Your task to perform on an android device: Go to notification settings Image 0: 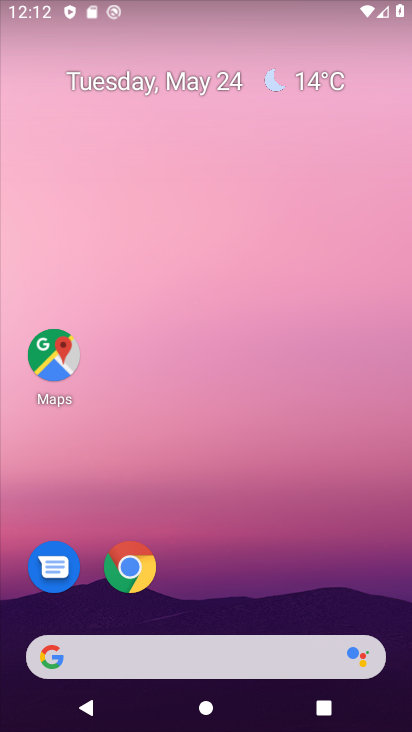
Step 0: drag from (253, 654) to (197, 232)
Your task to perform on an android device: Go to notification settings Image 1: 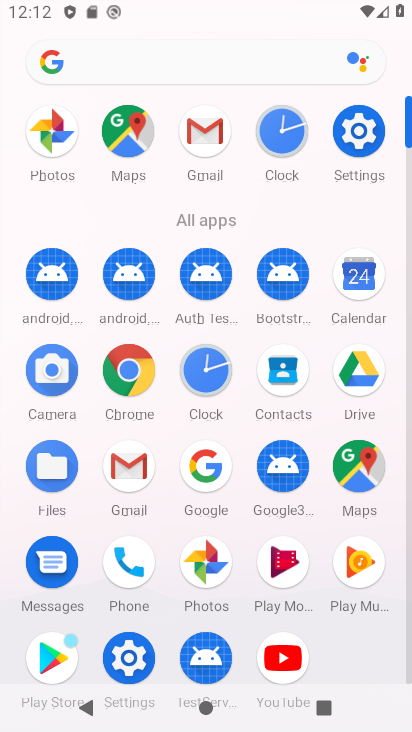
Step 1: click (365, 182)
Your task to perform on an android device: Go to notification settings Image 2: 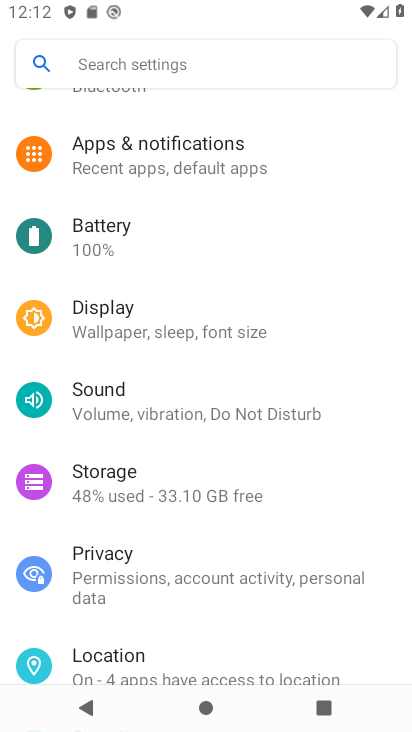
Step 2: click (127, 173)
Your task to perform on an android device: Go to notification settings Image 3: 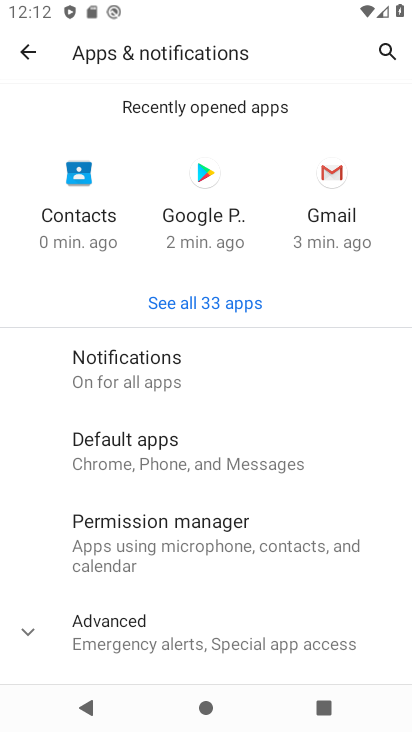
Step 3: task complete